Your task to perform on an android device: Open sound settings Image 0: 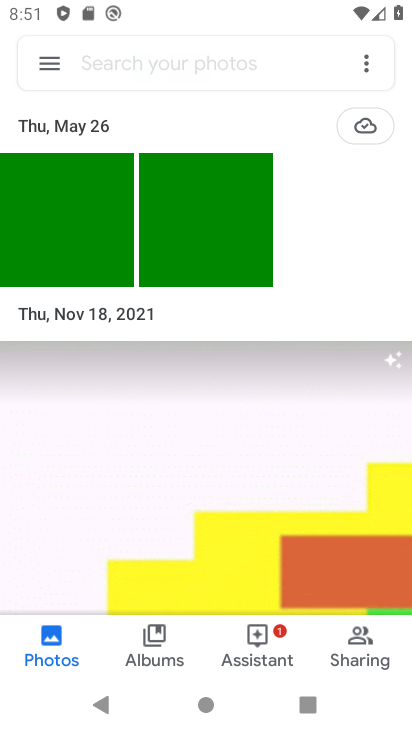
Step 0: press home button
Your task to perform on an android device: Open sound settings Image 1: 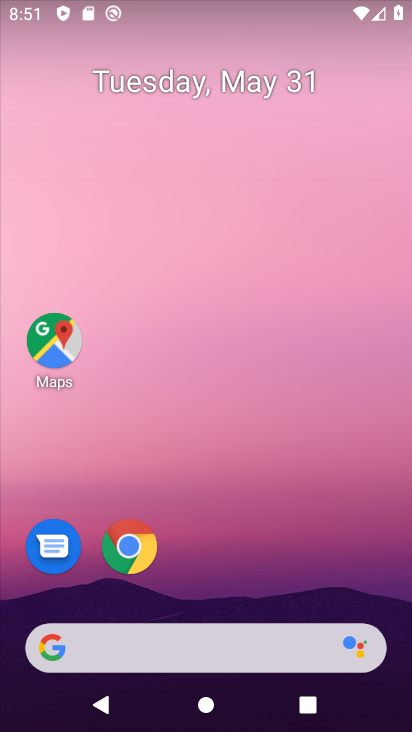
Step 1: drag from (397, 690) to (344, 144)
Your task to perform on an android device: Open sound settings Image 2: 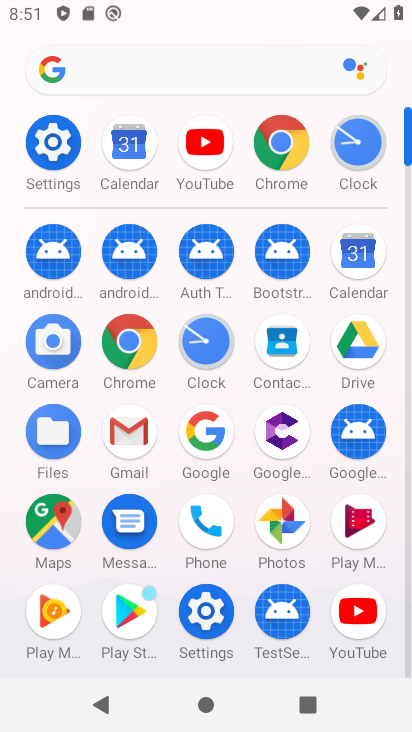
Step 2: click (51, 145)
Your task to perform on an android device: Open sound settings Image 3: 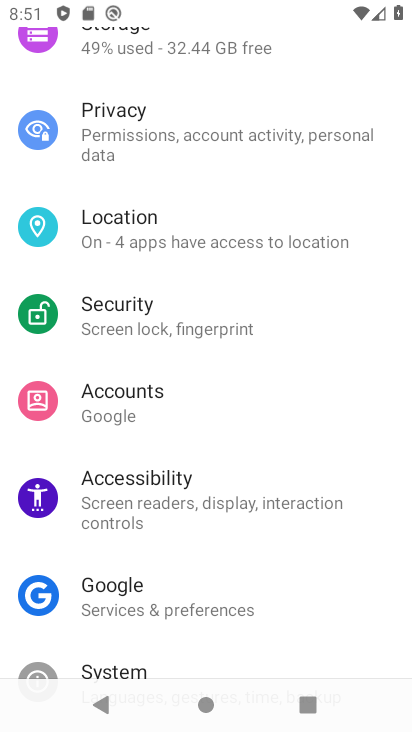
Step 3: drag from (263, 144) to (284, 527)
Your task to perform on an android device: Open sound settings Image 4: 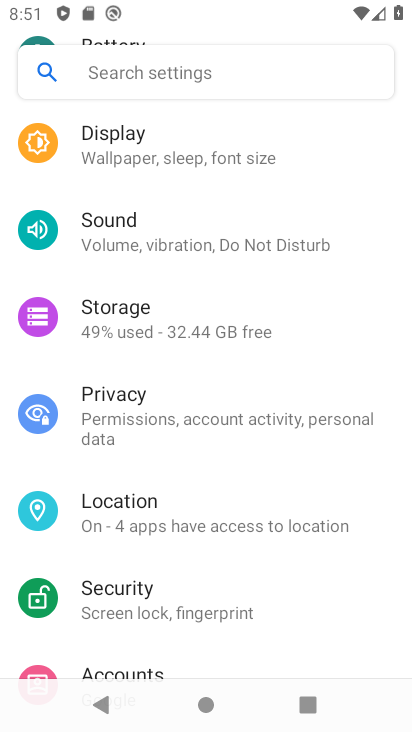
Step 4: click (121, 232)
Your task to perform on an android device: Open sound settings Image 5: 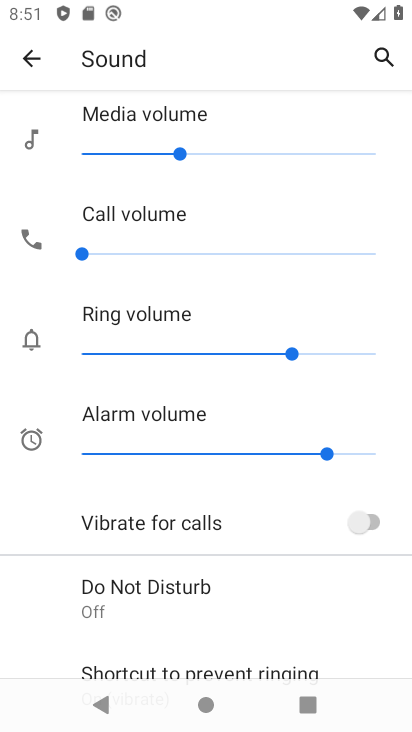
Step 5: task complete